Your task to perform on an android device: set the stopwatch Image 0: 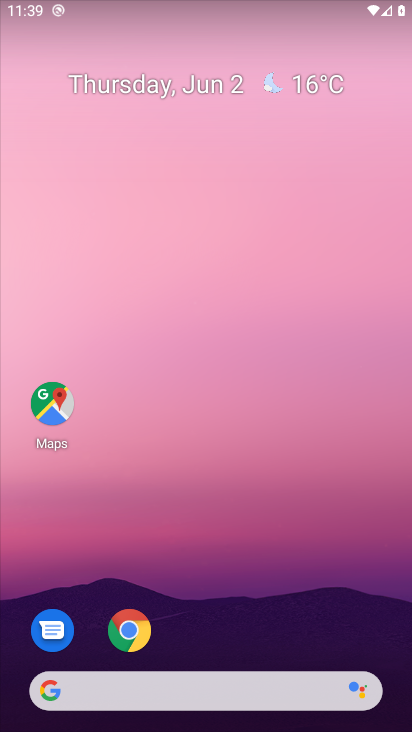
Step 0: drag from (237, 642) to (367, 12)
Your task to perform on an android device: set the stopwatch Image 1: 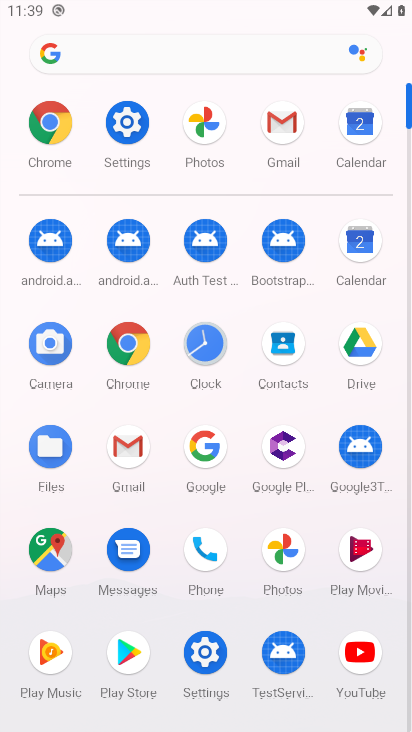
Step 1: click (202, 367)
Your task to perform on an android device: set the stopwatch Image 2: 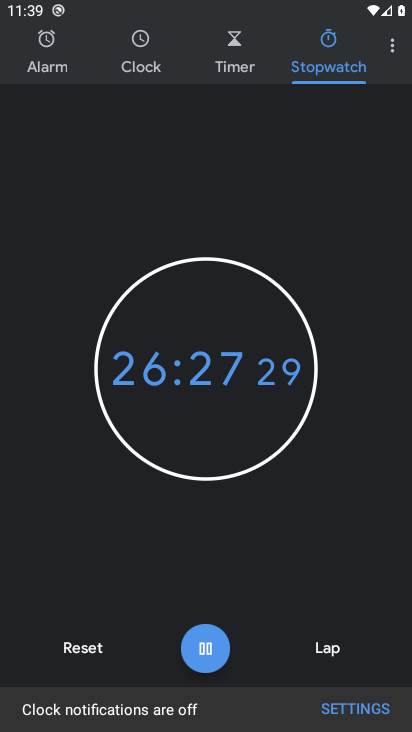
Step 2: click (99, 656)
Your task to perform on an android device: set the stopwatch Image 3: 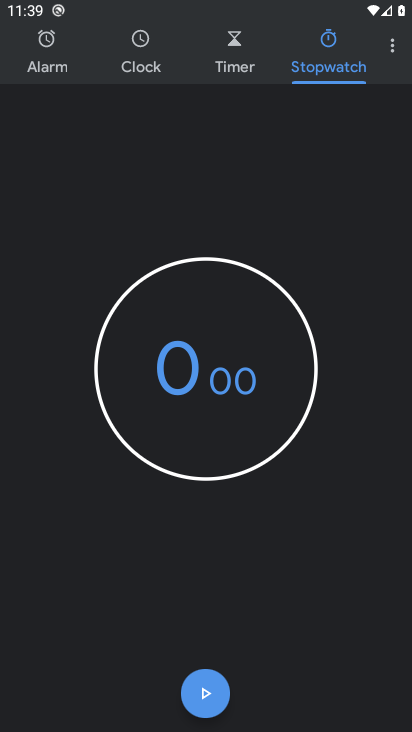
Step 3: click (223, 649)
Your task to perform on an android device: set the stopwatch Image 4: 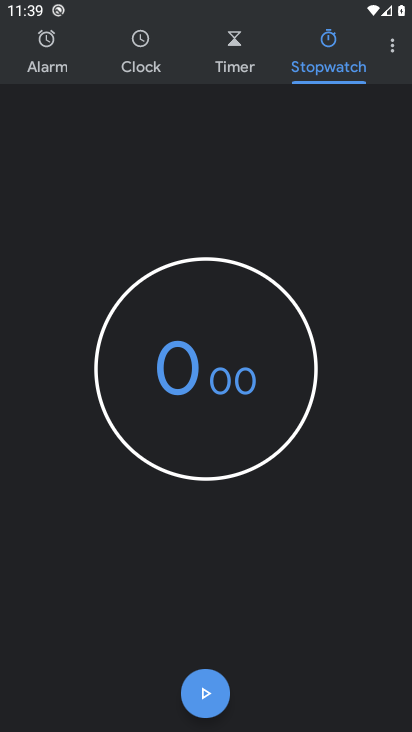
Step 4: task complete